Your task to perform on an android device: Open maps Image 0: 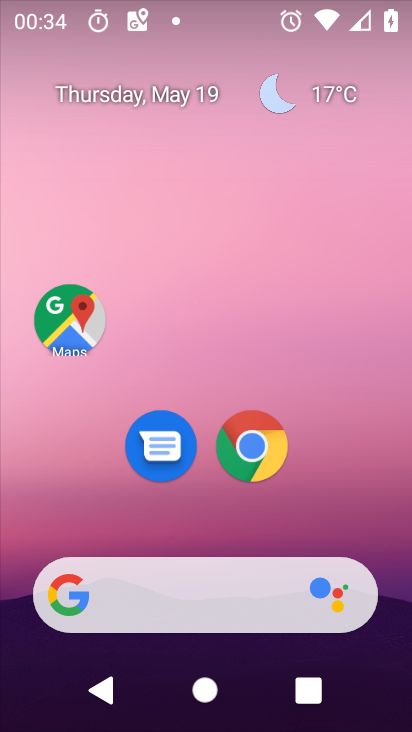
Step 0: click (85, 324)
Your task to perform on an android device: Open maps Image 1: 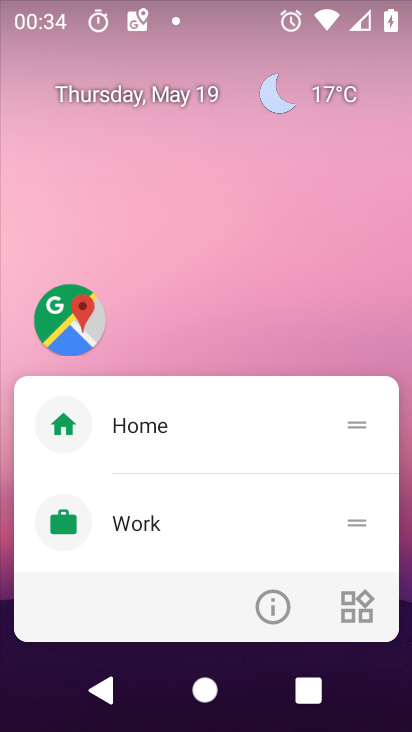
Step 1: click (75, 328)
Your task to perform on an android device: Open maps Image 2: 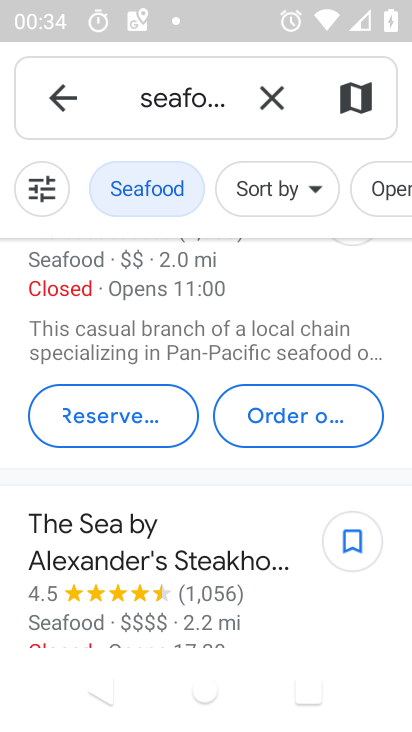
Step 2: click (68, 94)
Your task to perform on an android device: Open maps Image 3: 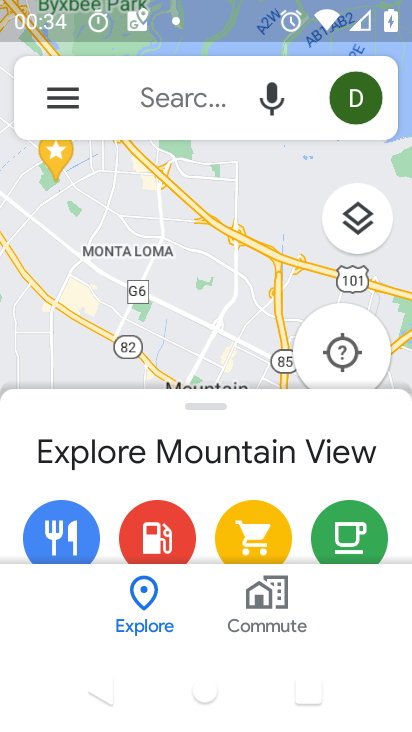
Step 3: task complete